Your task to perform on an android device: Open Google Chrome and open the bookmarks view Image 0: 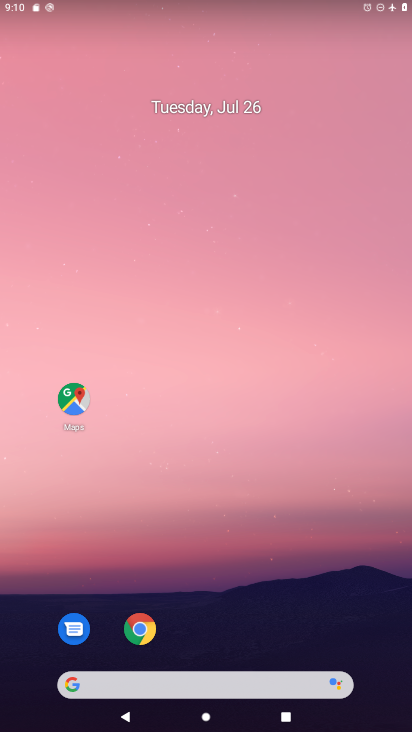
Step 0: click (135, 622)
Your task to perform on an android device: Open Google Chrome and open the bookmarks view Image 1: 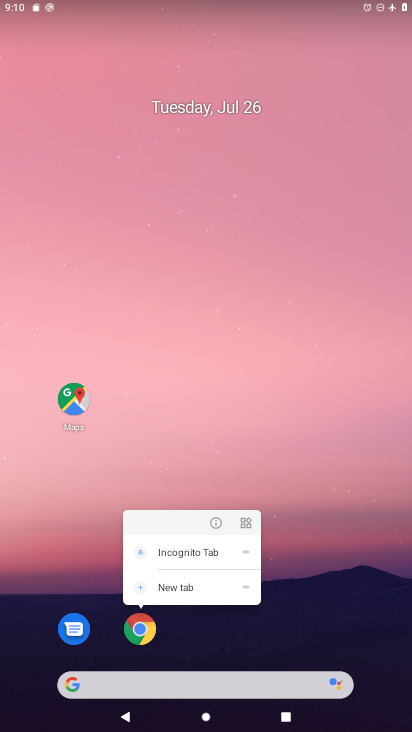
Step 1: click (136, 630)
Your task to perform on an android device: Open Google Chrome and open the bookmarks view Image 2: 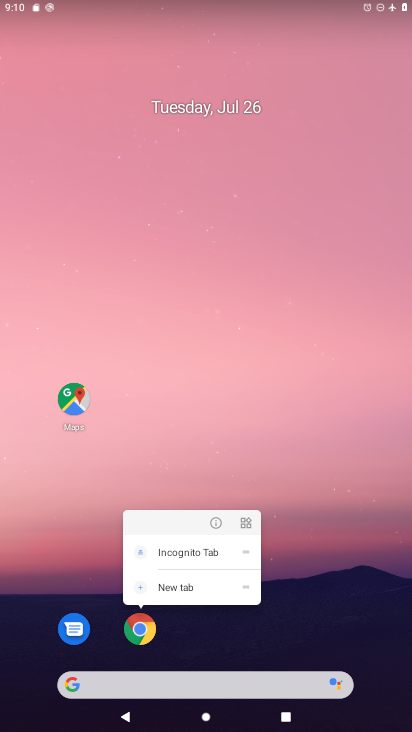
Step 2: click (137, 630)
Your task to perform on an android device: Open Google Chrome and open the bookmarks view Image 3: 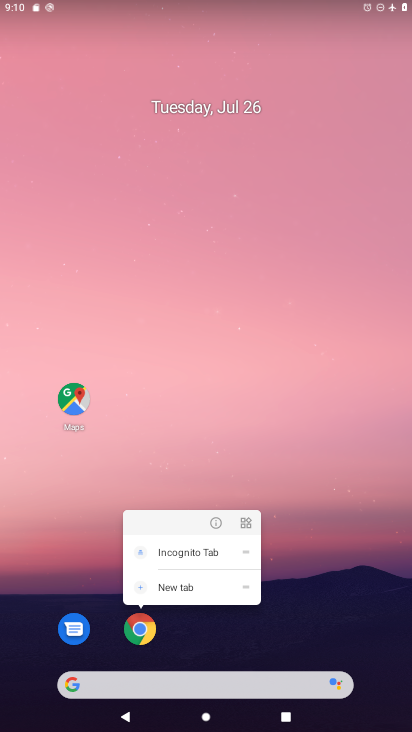
Step 3: click (136, 630)
Your task to perform on an android device: Open Google Chrome and open the bookmarks view Image 4: 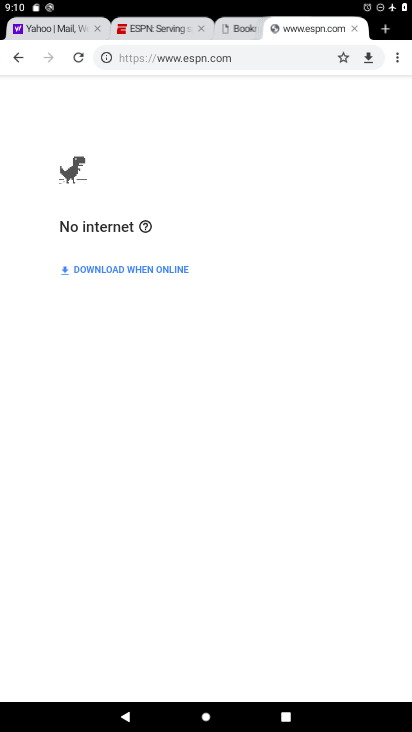
Step 4: task complete